Your task to perform on an android device: uninstall "Flipkart Online Shopping App" Image 0: 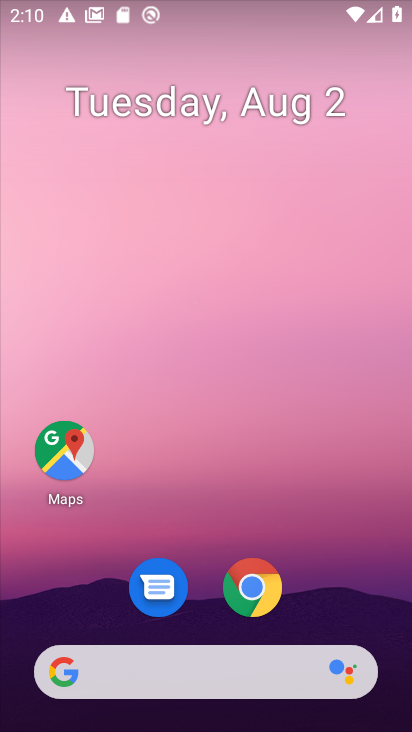
Step 0: drag from (209, 555) to (286, 123)
Your task to perform on an android device: uninstall "Flipkart Online Shopping App" Image 1: 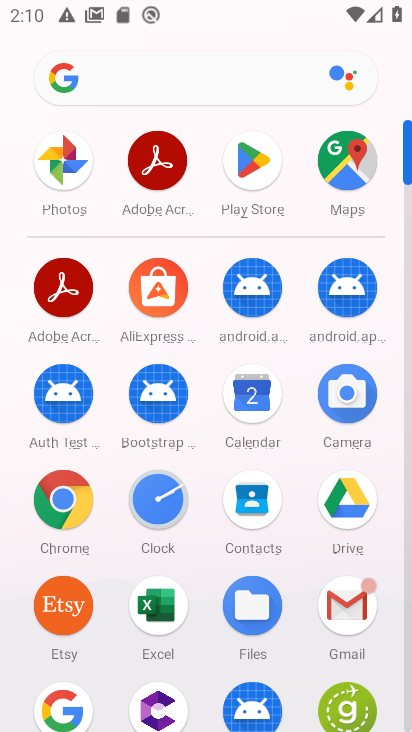
Step 1: click (253, 157)
Your task to perform on an android device: uninstall "Flipkart Online Shopping App" Image 2: 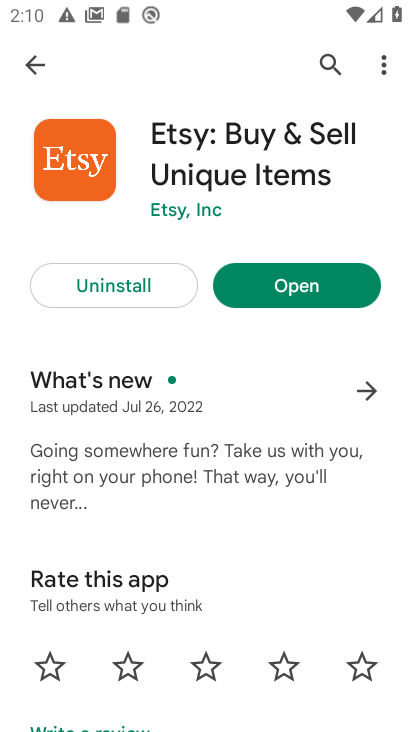
Step 2: click (337, 67)
Your task to perform on an android device: uninstall "Flipkart Online Shopping App" Image 3: 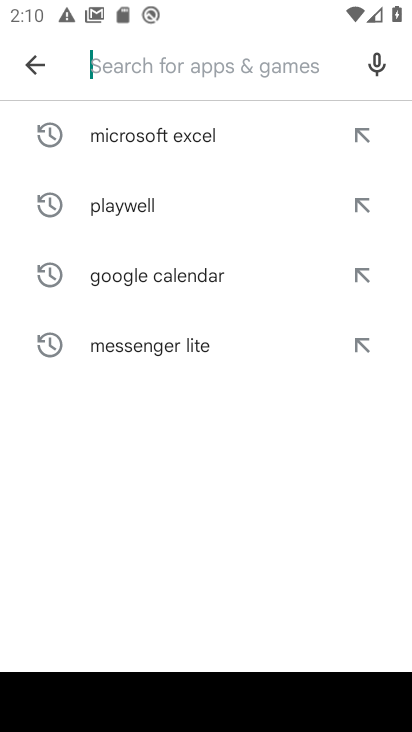
Step 3: type "Flipkart Online Shopping App"
Your task to perform on an android device: uninstall "Flipkart Online Shopping App" Image 4: 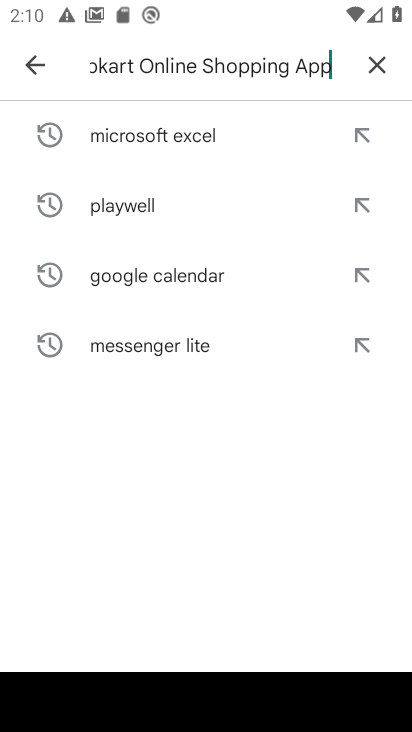
Step 4: type ""
Your task to perform on an android device: uninstall "Flipkart Online Shopping App" Image 5: 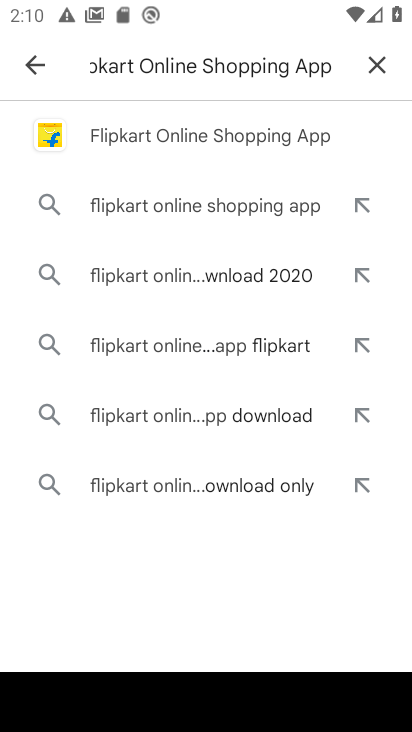
Step 5: click (218, 140)
Your task to perform on an android device: uninstall "Flipkart Online Shopping App" Image 6: 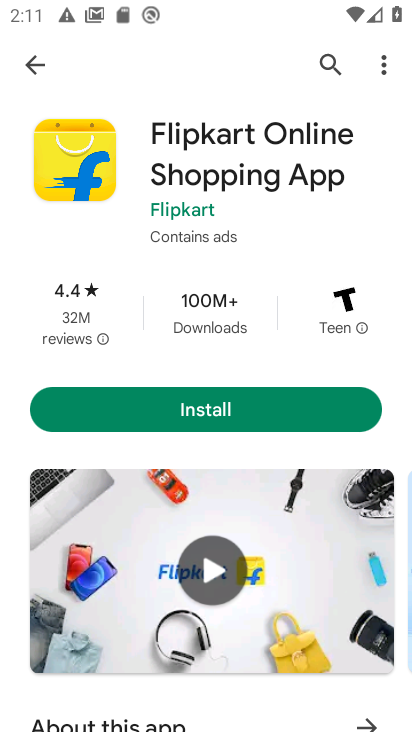
Step 6: task complete